Your task to perform on an android device: Go to privacy settings Image 0: 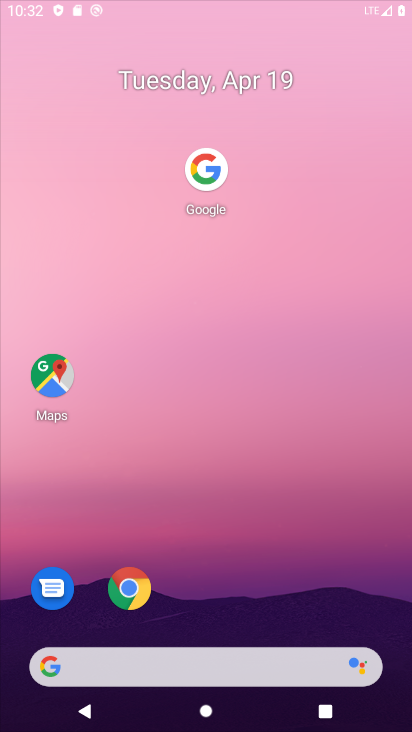
Step 0: drag from (272, 39) to (292, 5)
Your task to perform on an android device: Go to privacy settings Image 1: 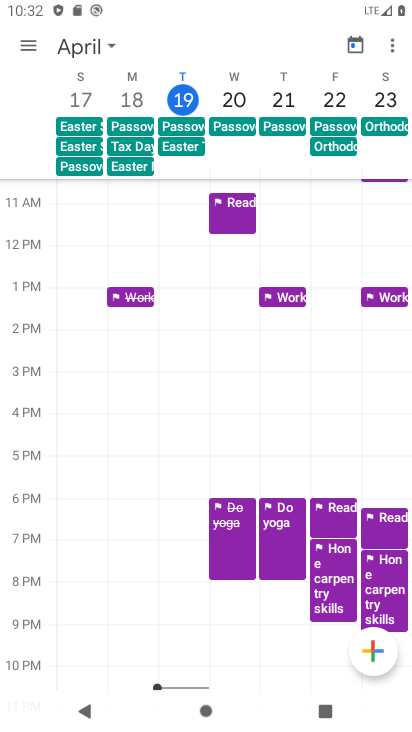
Step 1: press home button
Your task to perform on an android device: Go to privacy settings Image 2: 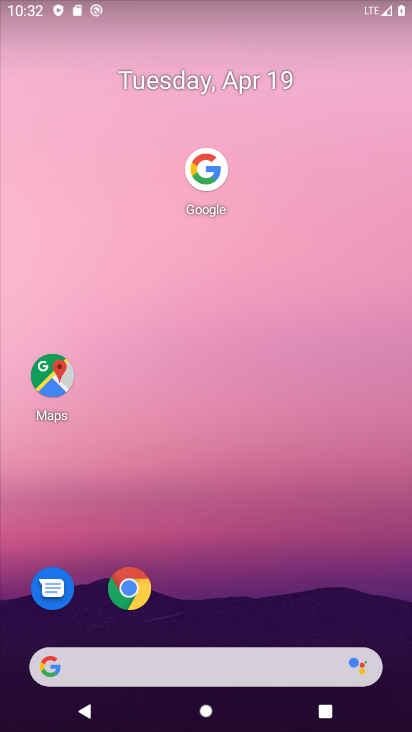
Step 2: drag from (229, 573) to (266, 31)
Your task to perform on an android device: Go to privacy settings Image 3: 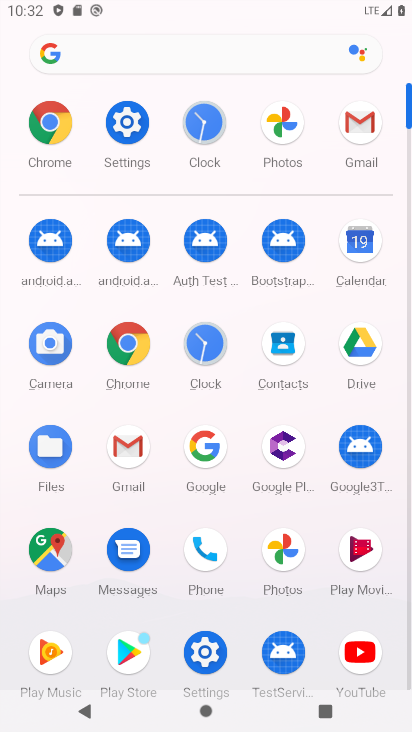
Step 3: click (123, 130)
Your task to perform on an android device: Go to privacy settings Image 4: 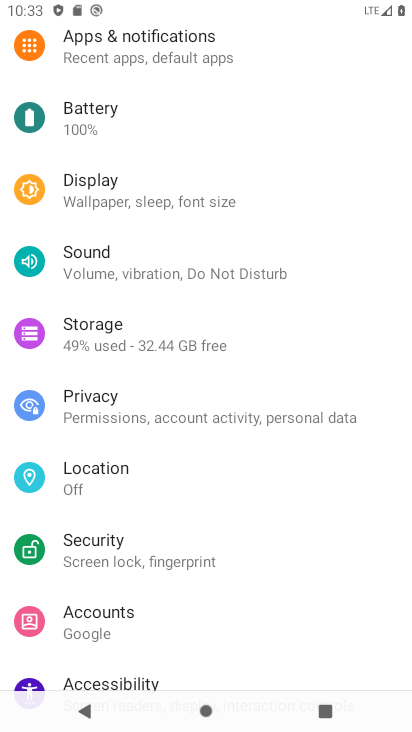
Step 4: click (97, 398)
Your task to perform on an android device: Go to privacy settings Image 5: 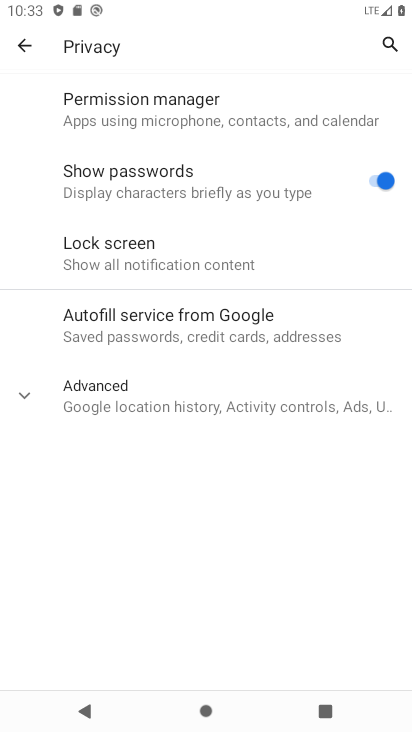
Step 5: task complete